Your task to perform on an android device: Open settings Image 0: 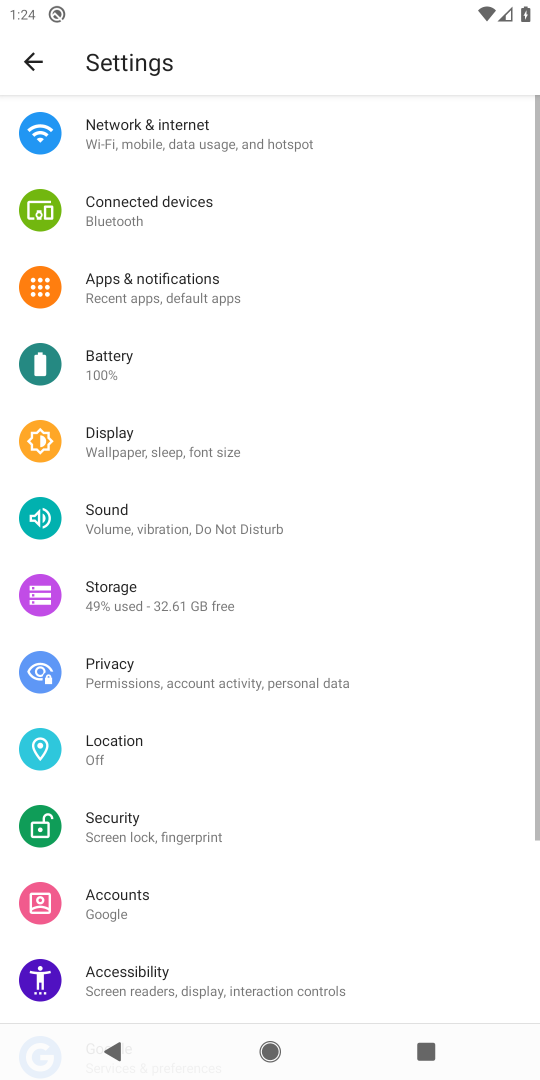
Step 0: press home button
Your task to perform on an android device: Open settings Image 1: 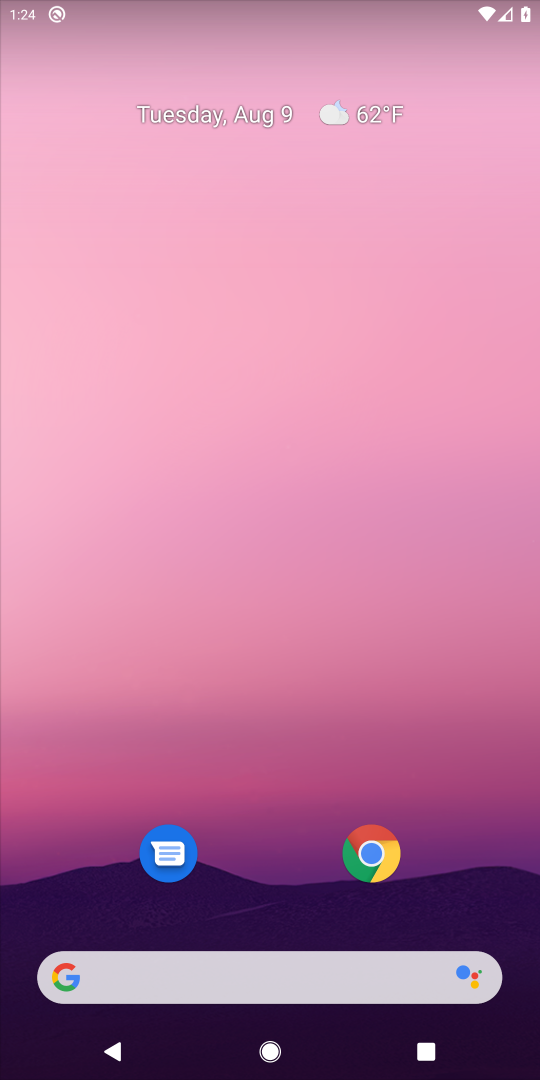
Step 1: press home button
Your task to perform on an android device: Open settings Image 2: 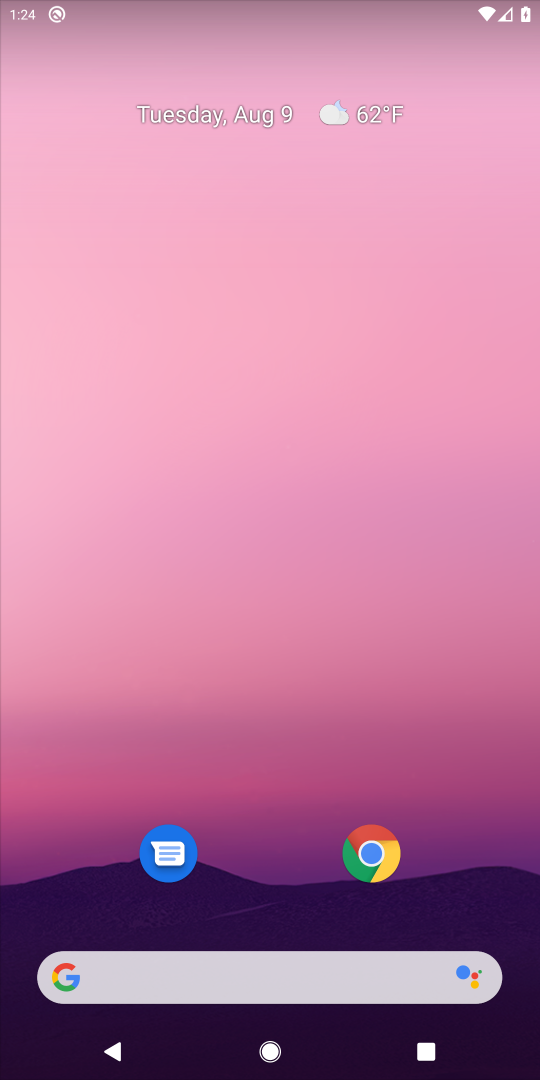
Step 2: drag from (262, 607) to (277, 78)
Your task to perform on an android device: Open settings Image 3: 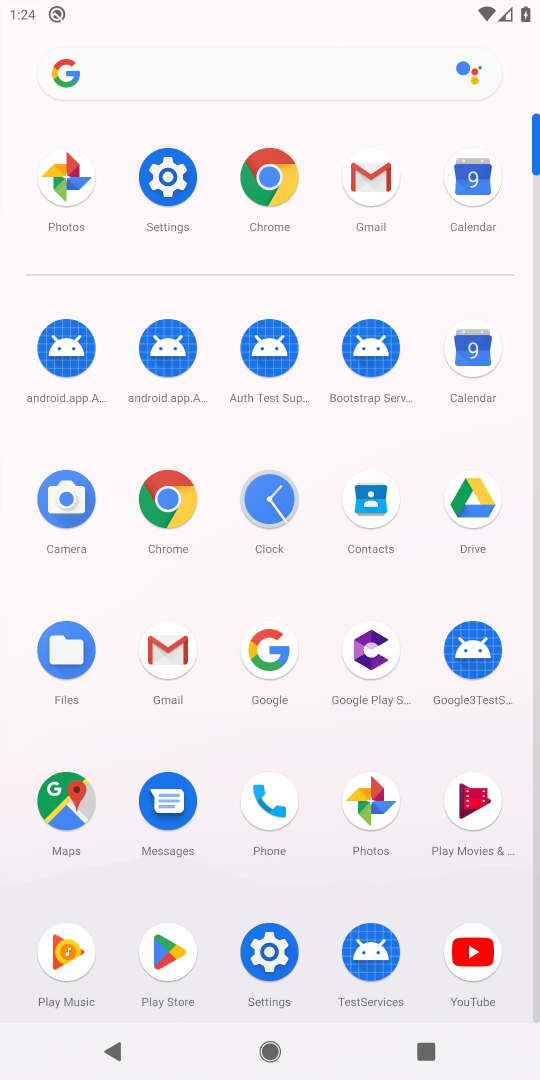
Step 3: click (171, 168)
Your task to perform on an android device: Open settings Image 4: 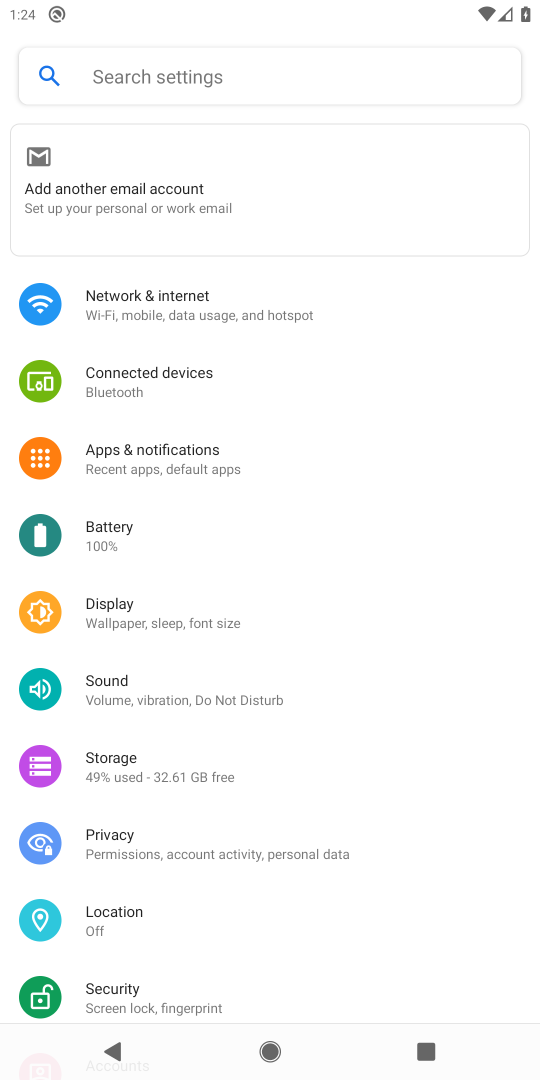
Step 4: task complete